Your task to perform on an android device: open device folders in google photos Image 0: 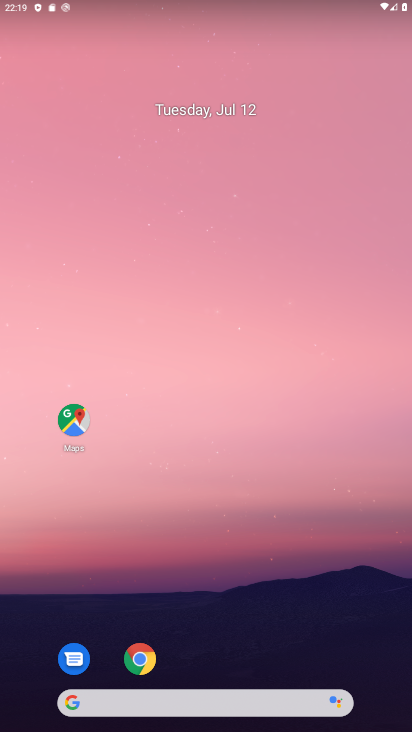
Step 0: drag from (190, 587) to (205, 405)
Your task to perform on an android device: open device folders in google photos Image 1: 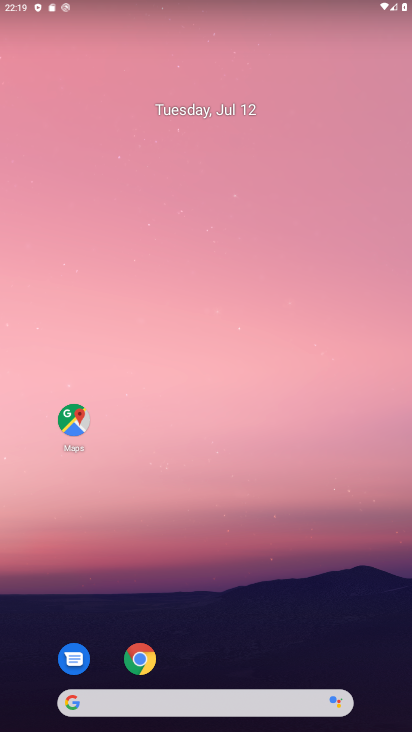
Step 1: drag from (238, 679) to (238, 309)
Your task to perform on an android device: open device folders in google photos Image 2: 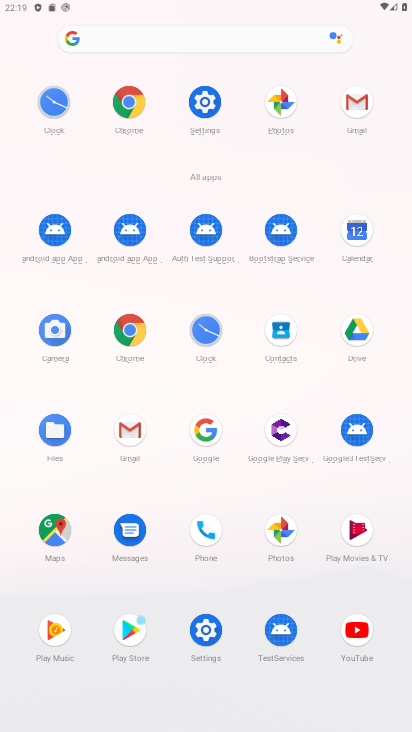
Step 2: click (272, 525)
Your task to perform on an android device: open device folders in google photos Image 3: 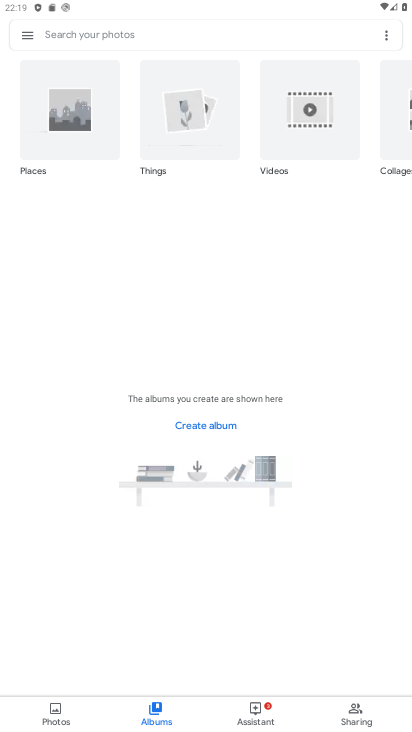
Step 3: task complete